Your task to perform on an android device: turn off translation in the chrome app Image 0: 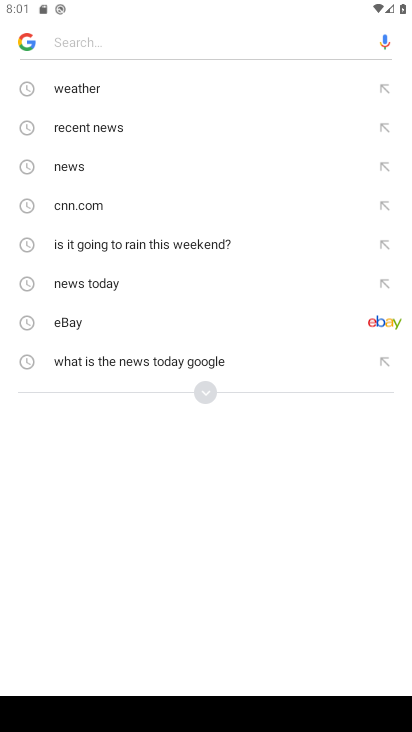
Step 0: press home button
Your task to perform on an android device: turn off translation in the chrome app Image 1: 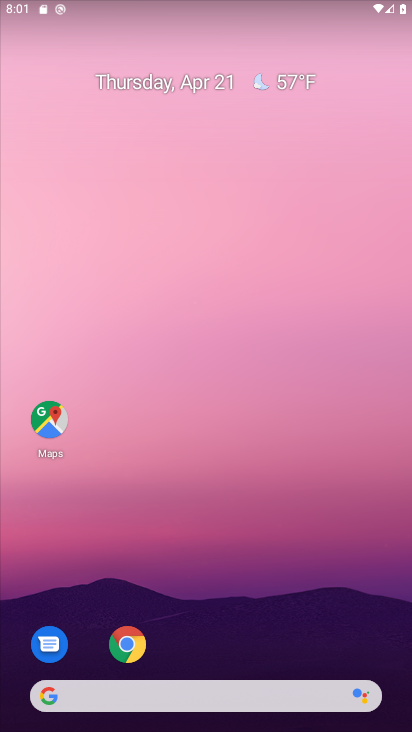
Step 1: click (132, 646)
Your task to perform on an android device: turn off translation in the chrome app Image 2: 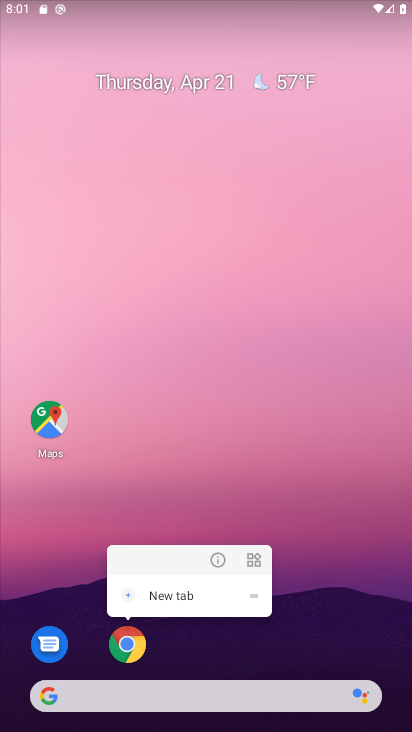
Step 2: click (124, 644)
Your task to perform on an android device: turn off translation in the chrome app Image 3: 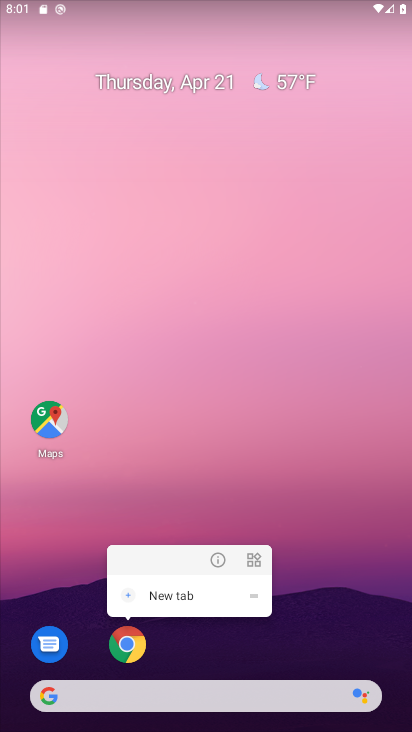
Step 3: click (126, 642)
Your task to perform on an android device: turn off translation in the chrome app Image 4: 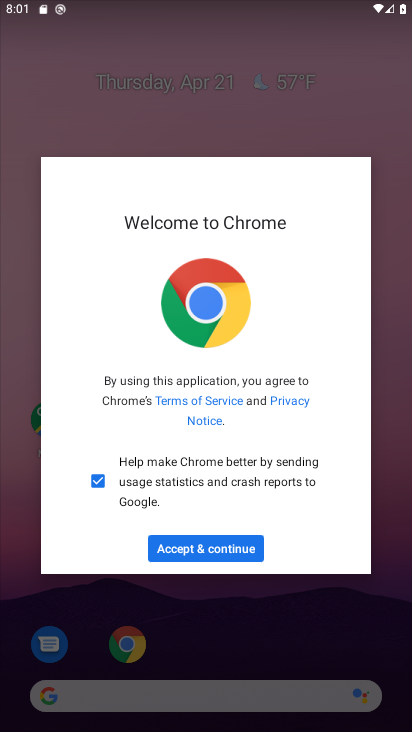
Step 4: click (201, 551)
Your task to perform on an android device: turn off translation in the chrome app Image 5: 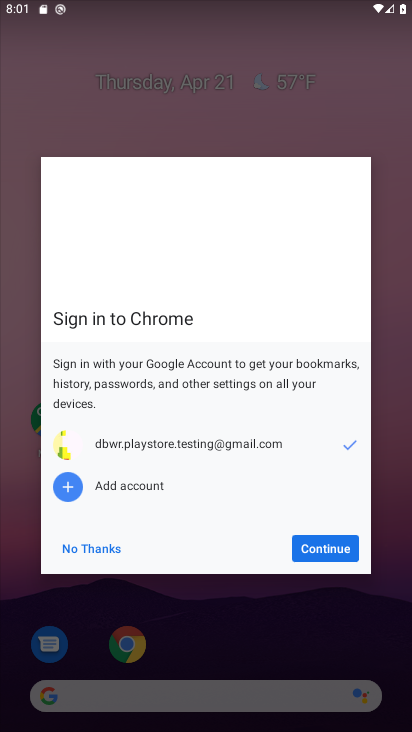
Step 5: click (327, 548)
Your task to perform on an android device: turn off translation in the chrome app Image 6: 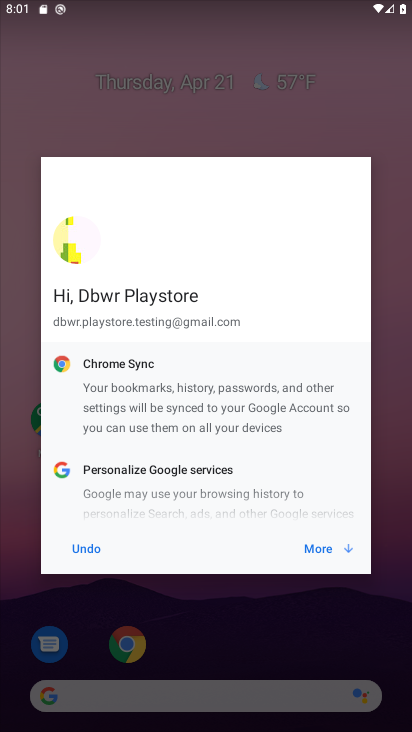
Step 6: click (315, 554)
Your task to perform on an android device: turn off translation in the chrome app Image 7: 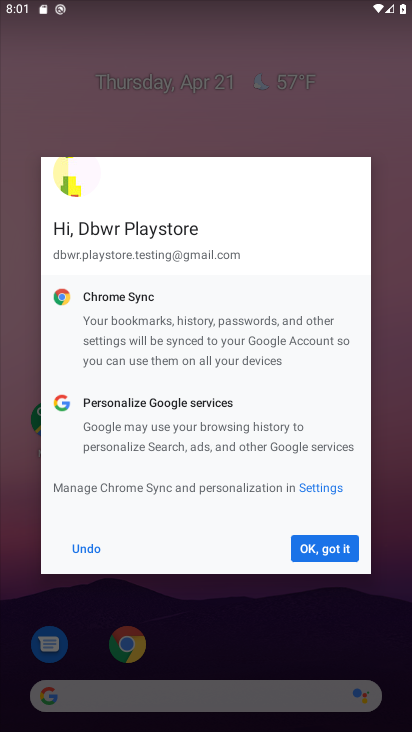
Step 7: click (317, 550)
Your task to perform on an android device: turn off translation in the chrome app Image 8: 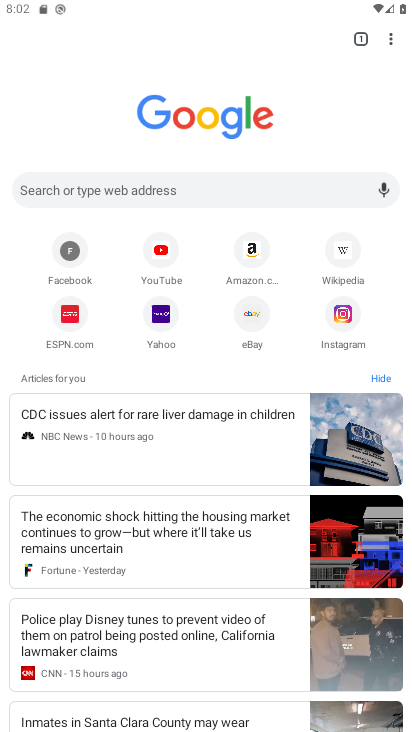
Step 8: click (389, 35)
Your task to perform on an android device: turn off translation in the chrome app Image 9: 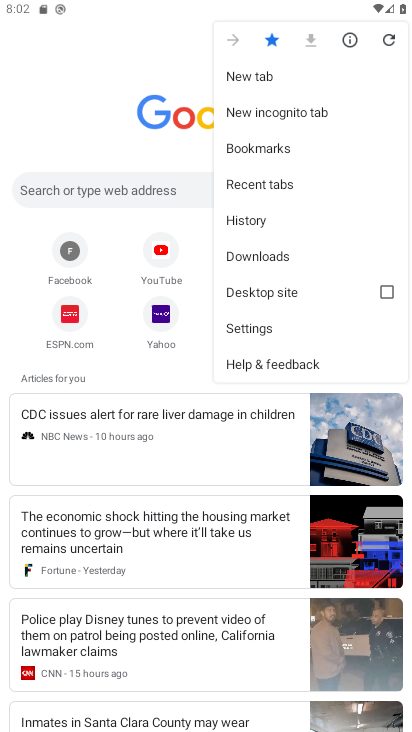
Step 9: click (288, 321)
Your task to perform on an android device: turn off translation in the chrome app Image 10: 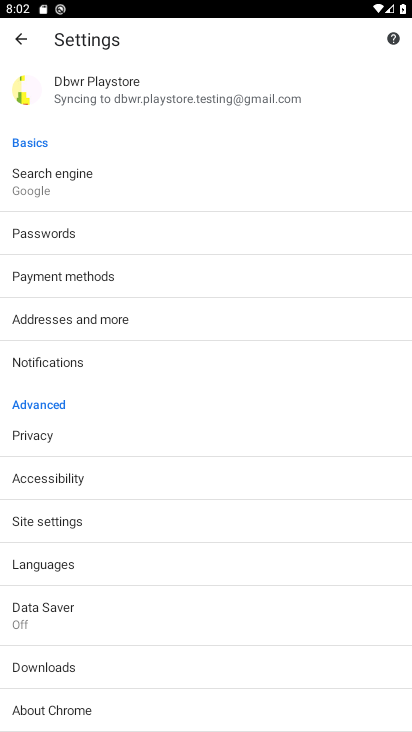
Step 10: click (68, 569)
Your task to perform on an android device: turn off translation in the chrome app Image 11: 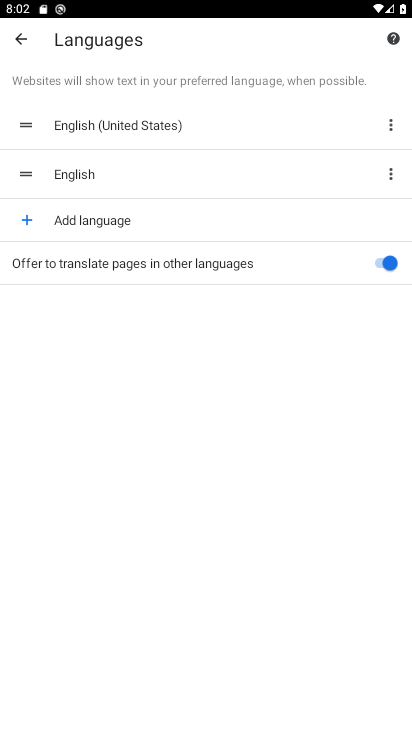
Step 11: click (375, 261)
Your task to perform on an android device: turn off translation in the chrome app Image 12: 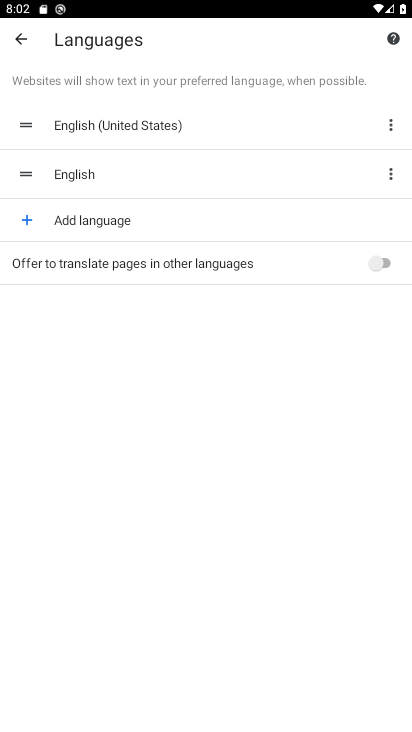
Step 12: task complete